Your task to perform on an android device: Do I have any events this weekend? Image 0: 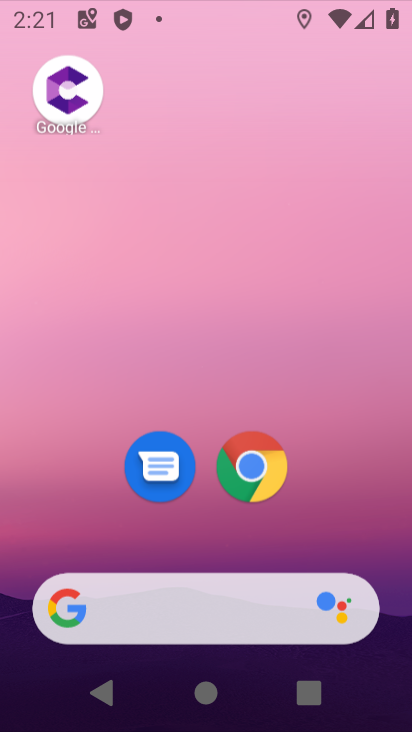
Step 0: click (171, 280)
Your task to perform on an android device: Do I have any events this weekend? Image 1: 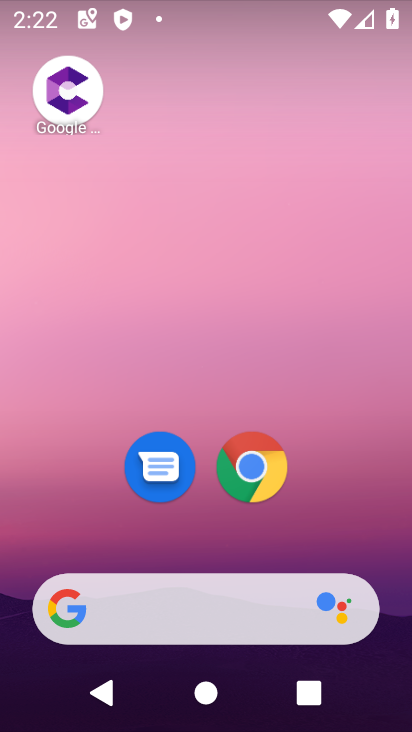
Step 1: drag from (189, 521) to (201, 150)
Your task to perform on an android device: Do I have any events this weekend? Image 2: 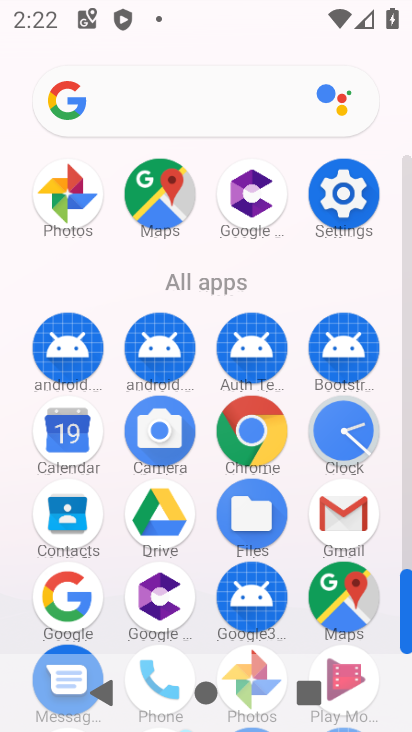
Step 2: drag from (213, 616) to (210, 244)
Your task to perform on an android device: Do I have any events this weekend? Image 3: 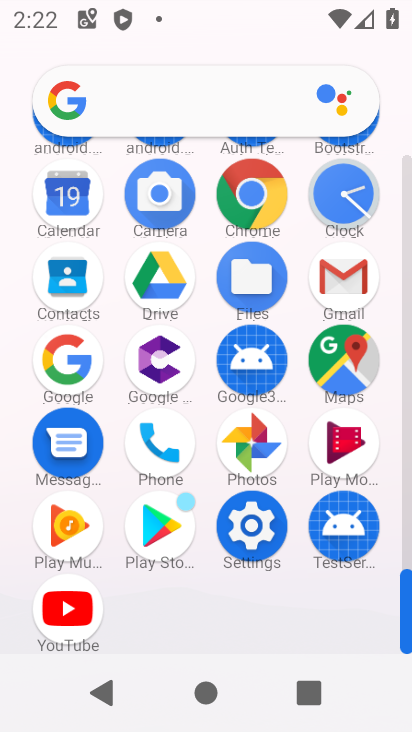
Step 3: click (76, 207)
Your task to perform on an android device: Do I have any events this weekend? Image 4: 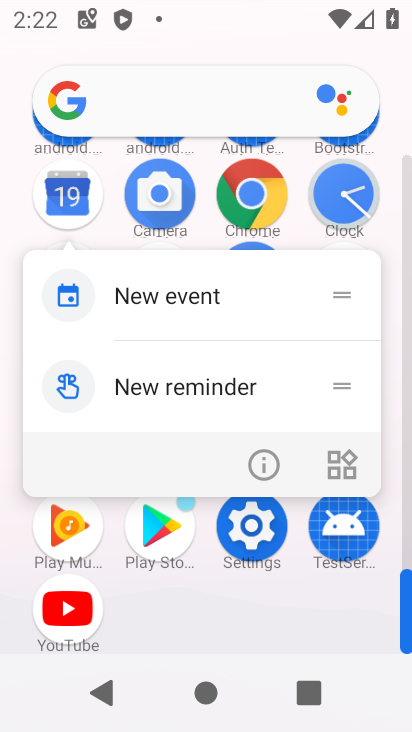
Step 4: click (266, 459)
Your task to perform on an android device: Do I have any events this weekend? Image 5: 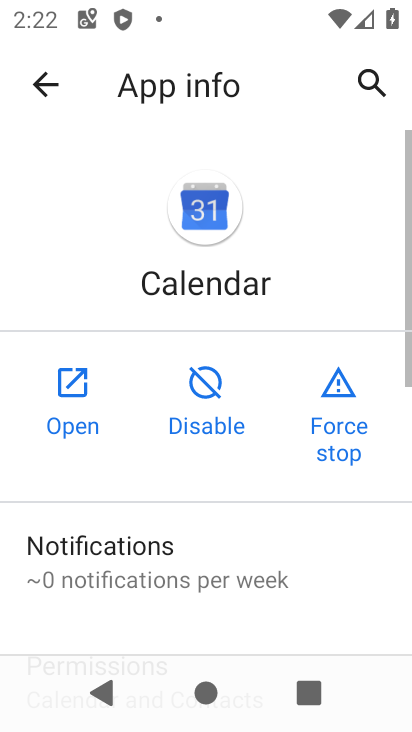
Step 5: click (73, 404)
Your task to perform on an android device: Do I have any events this weekend? Image 6: 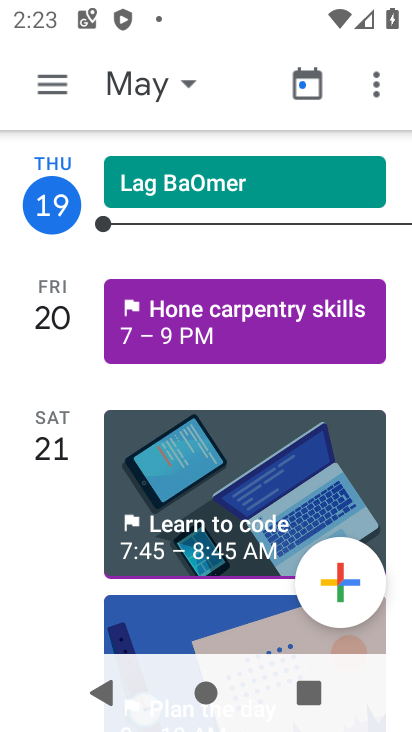
Step 6: click (196, 71)
Your task to perform on an android device: Do I have any events this weekend? Image 7: 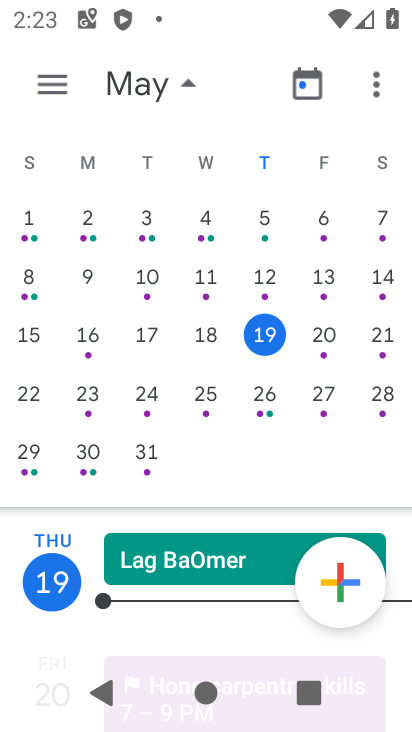
Step 7: drag from (260, 528) to (301, 243)
Your task to perform on an android device: Do I have any events this weekend? Image 8: 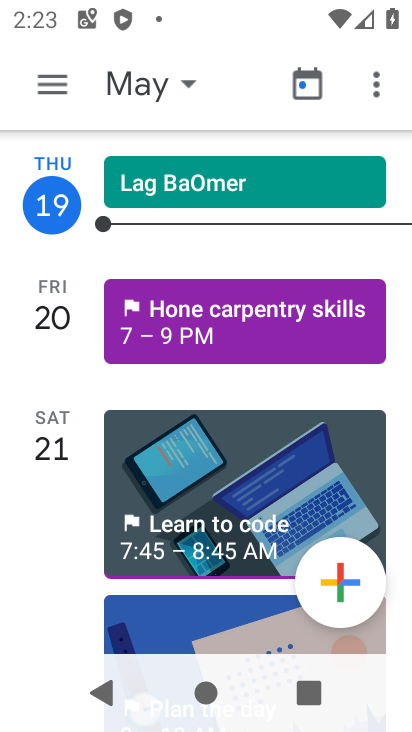
Step 8: click (168, 72)
Your task to perform on an android device: Do I have any events this weekend? Image 9: 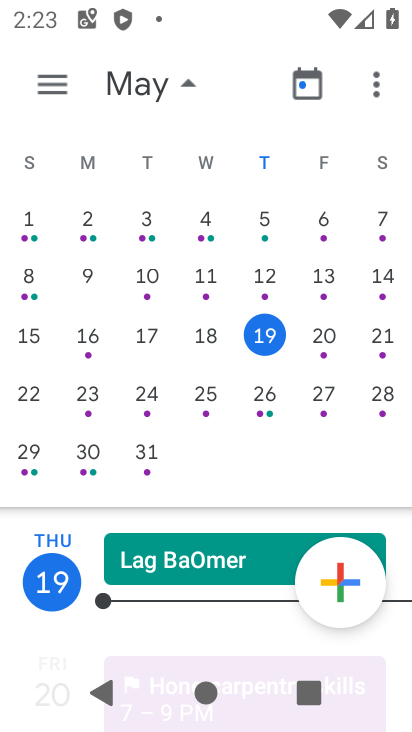
Step 9: click (390, 343)
Your task to perform on an android device: Do I have any events this weekend? Image 10: 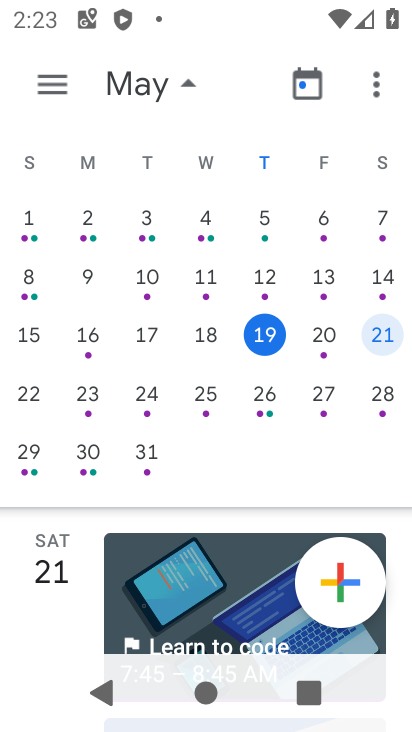
Step 10: task complete